Your task to perform on an android device: What is the recent news? Image 0: 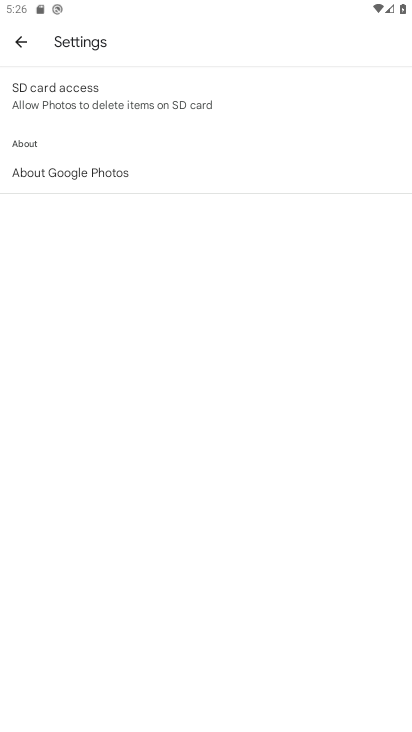
Step 0: press home button
Your task to perform on an android device: What is the recent news? Image 1: 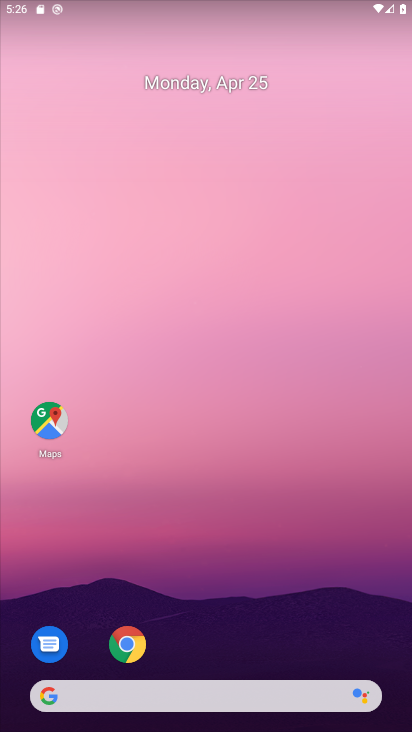
Step 1: click (137, 637)
Your task to perform on an android device: What is the recent news? Image 2: 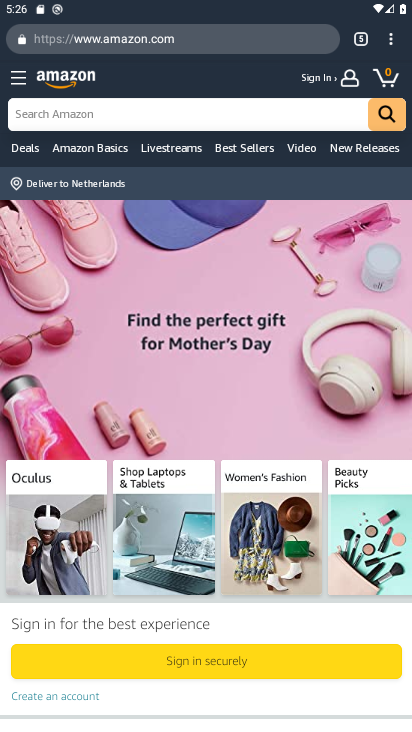
Step 2: click (182, 34)
Your task to perform on an android device: What is the recent news? Image 3: 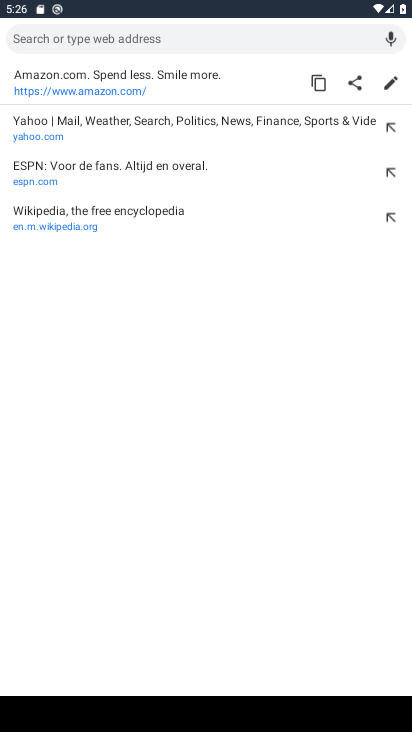
Step 3: type "what is the recent news? google"
Your task to perform on an android device: What is the recent news? Image 4: 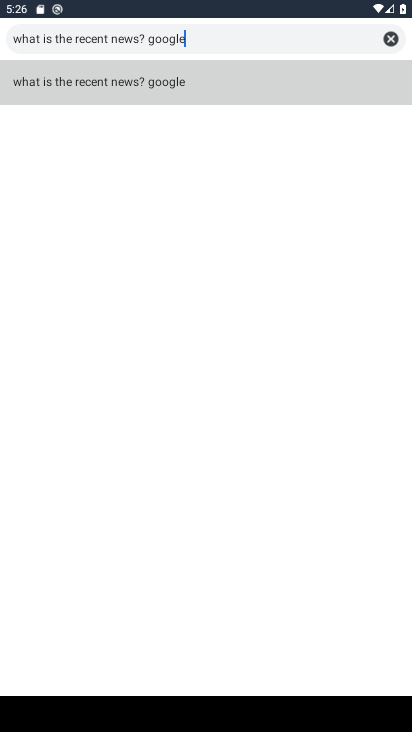
Step 4: click (170, 73)
Your task to perform on an android device: What is the recent news? Image 5: 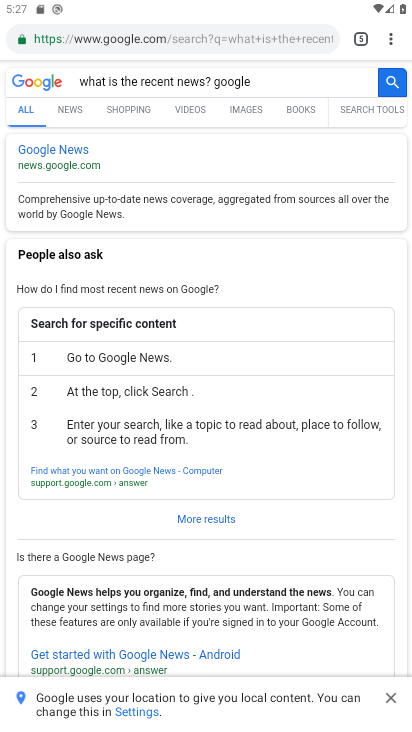
Step 5: click (69, 109)
Your task to perform on an android device: What is the recent news? Image 6: 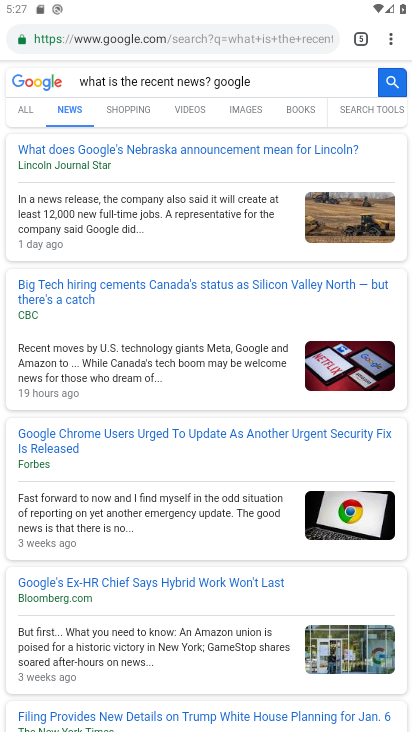
Step 6: task complete